Your task to perform on an android device: all mails in gmail Image 0: 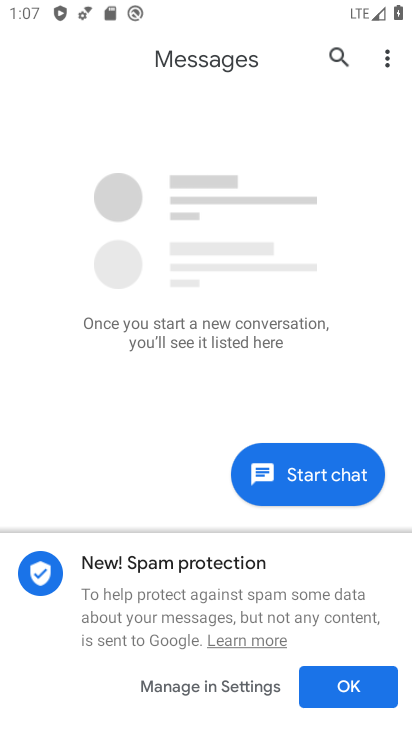
Step 0: press home button
Your task to perform on an android device: all mails in gmail Image 1: 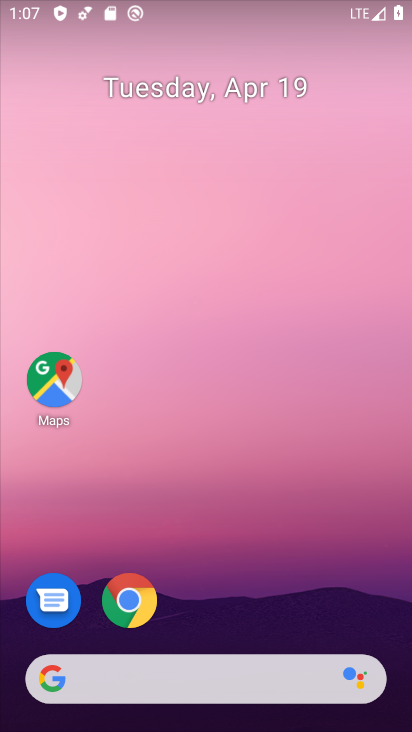
Step 1: drag from (239, 642) to (181, 4)
Your task to perform on an android device: all mails in gmail Image 2: 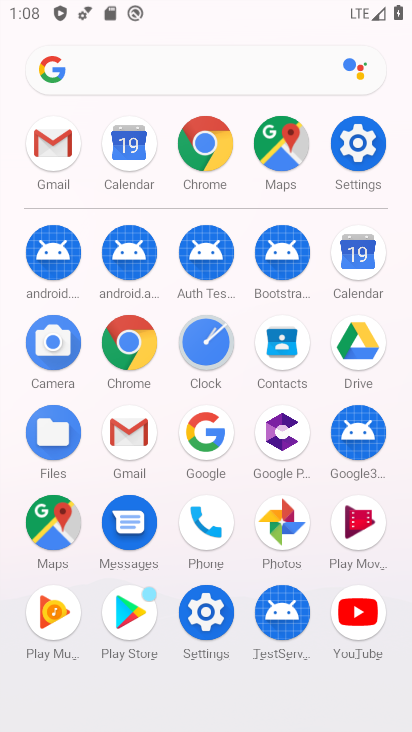
Step 2: click (134, 426)
Your task to perform on an android device: all mails in gmail Image 3: 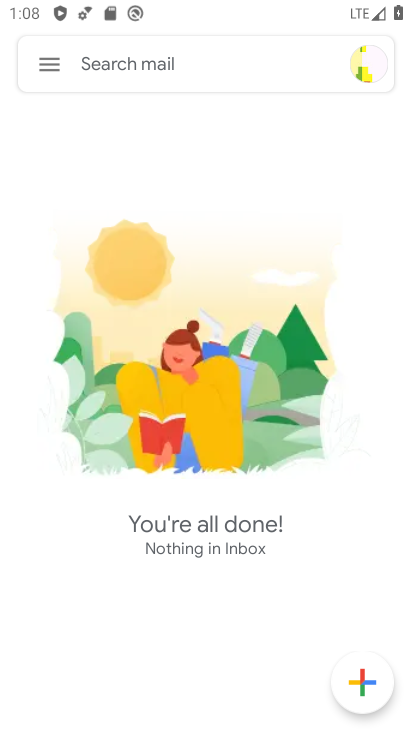
Step 3: click (34, 69)
Your task to perform on an android device: all mails in gmail Image 4: 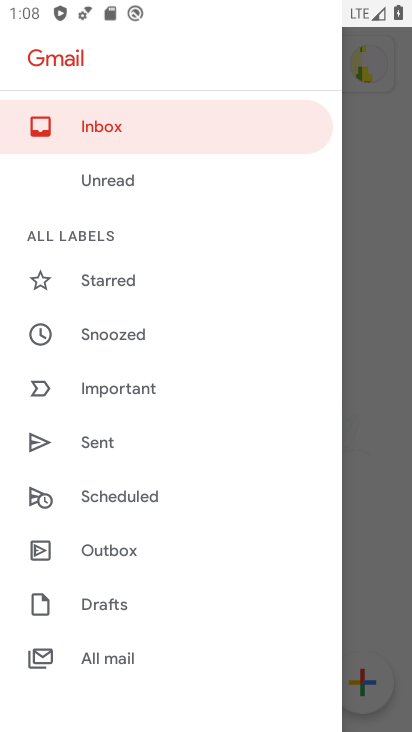
Step 4: click (110, 649)
Your task to perform on an android device: all mails in gmail Image 5: 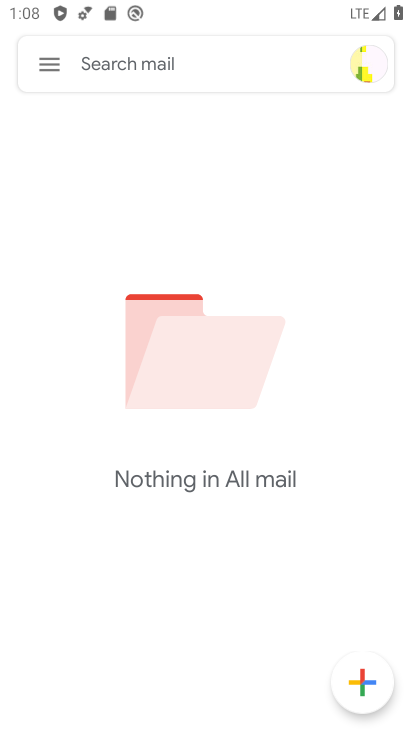
Step 5: task complete